Your task to perform on an android device: turn on the 24-hour format for clock Image 0: 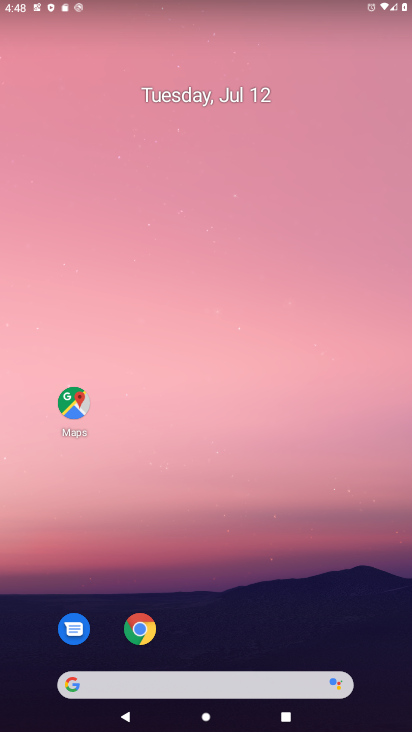
Step 0: press home button
Your task to perform on an android device: turn on the 24-hour format for clock Image 1: 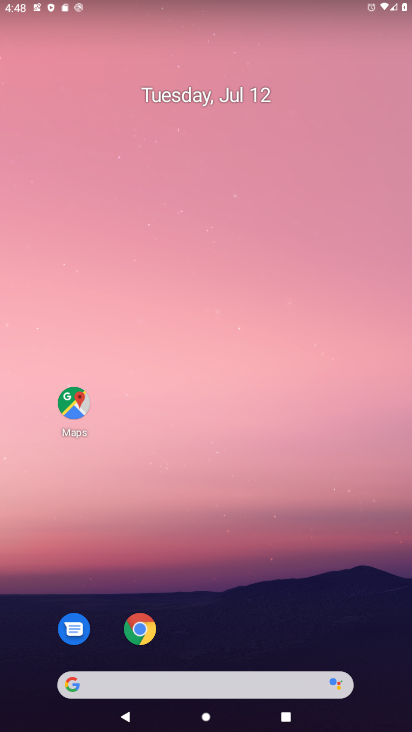
Step 1: drag from (258, 647) to (316, 78)
Your task to perform on an android device: turn on the 24-hour format for clock Image 2: 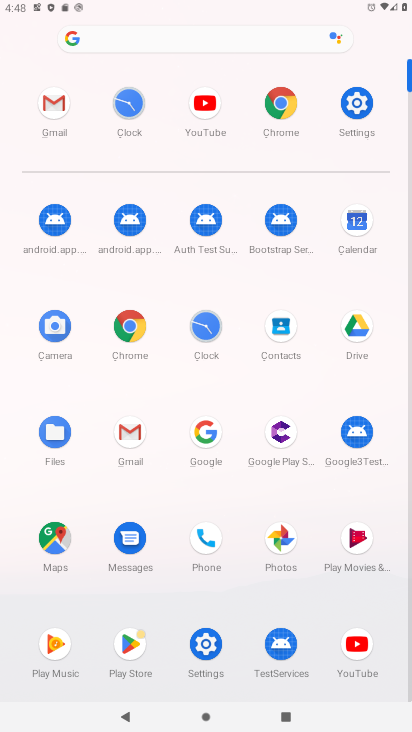
Step 2: click (357, 108)
Your task to perform on an android device: turn on the 24-hour format for clock Image 3: 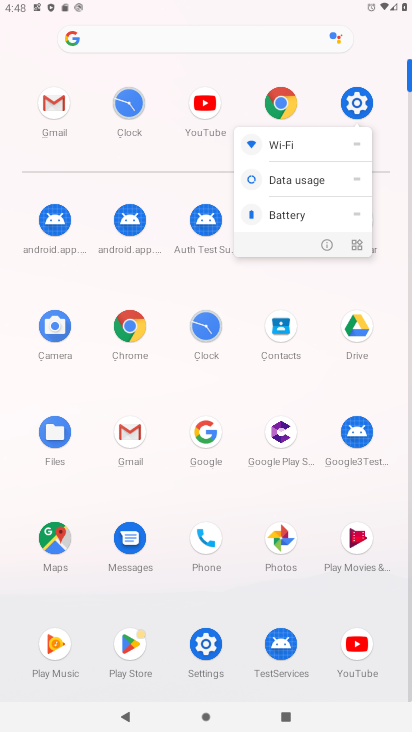
Step 3: click (366, 102)
Your task to perform on an android device: turn on the 24-hour format for clock Image 4: 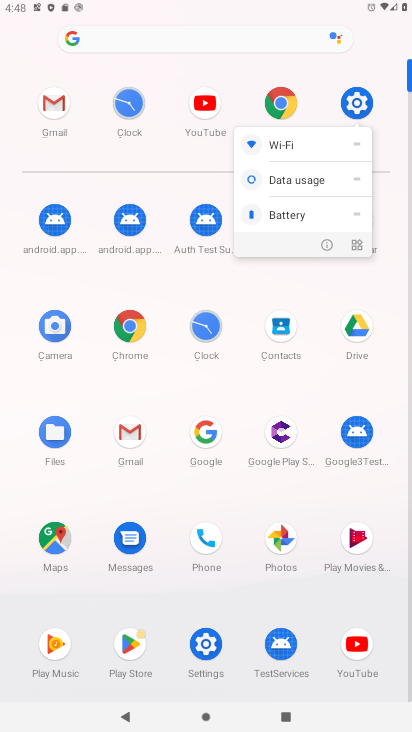
Step 4: click (354, 98)
Your task to perform on an android device: turn on the 24-hour format for clock Image 5: 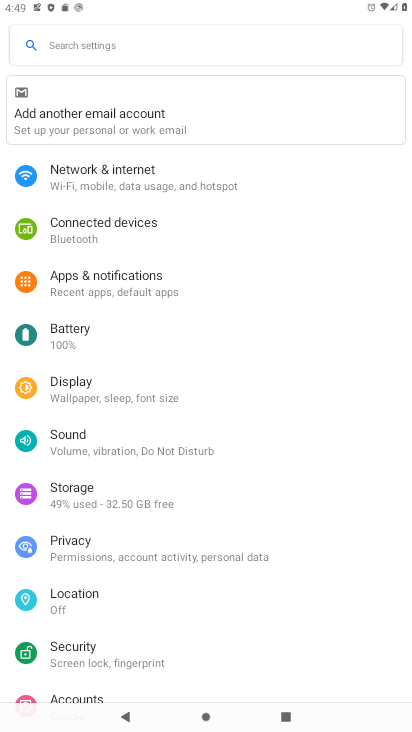
Step 5: drag from (340, 586) to (381, 103)
Your task to perform on an android device: turn on the 24-hour format for clock Image 6: 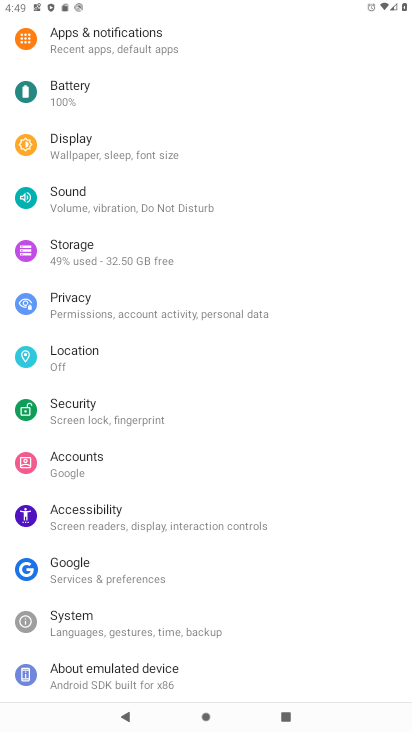
Step 6: click (60, 626)
Your task to perform on an android device: turn on the 24-hour format for clock Image 7: 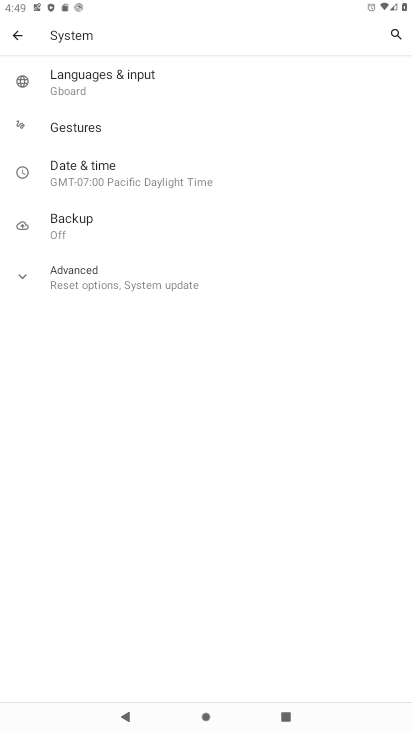
Step 7: click (75, 159)
Your task to perform on an android device: turn on the 24-hour format for clock Image 8: 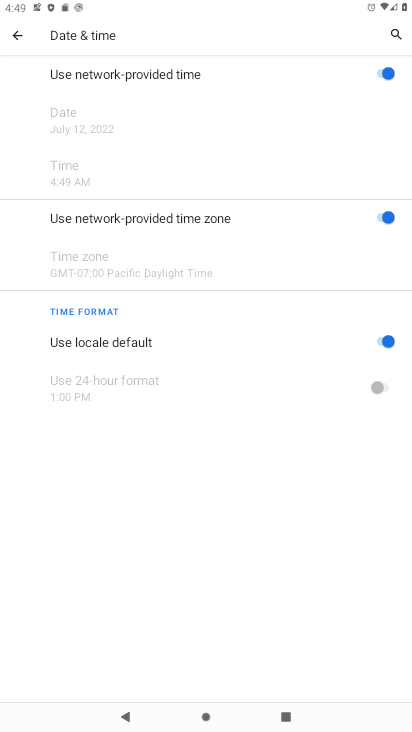
Step 8: click (384, 335)
Your task to perform on an android device: turn on the 24-hour format for clock Image 9: 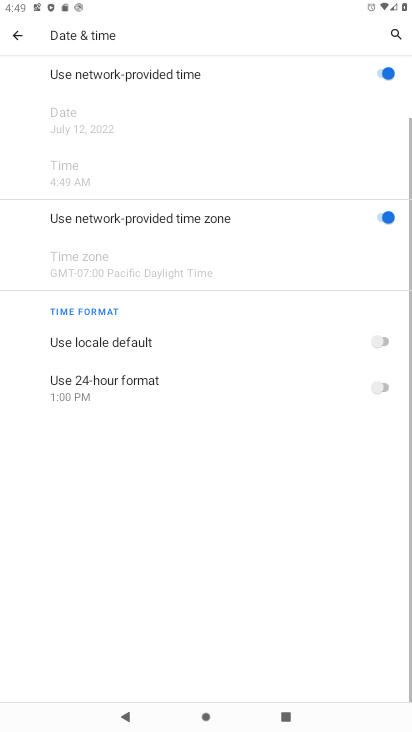
Step 9: click (381, 383)
Your task to perform on an android device: turn on the 24-hour format for clock Image 10: 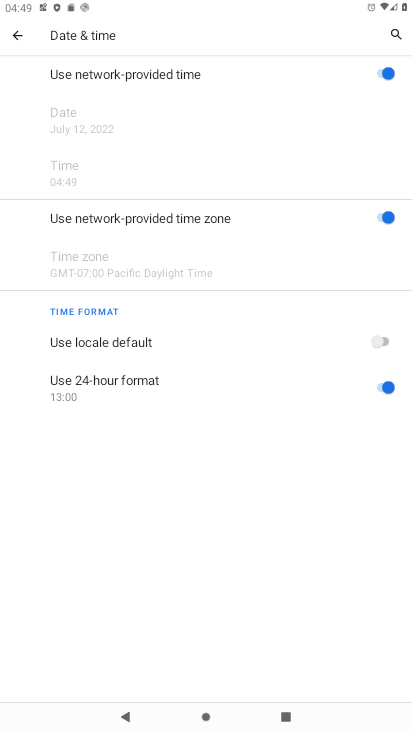
Step 10: task complete